Your task to perform on an android device: turn on showing notifications on the lock screen Image 0: 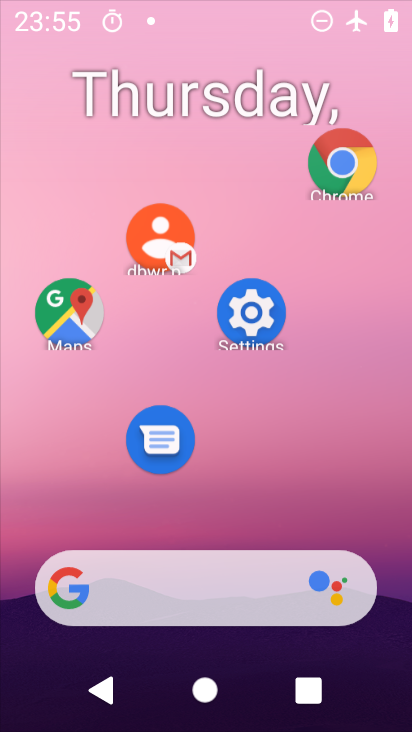
Step 0: drag from (283, 545) to (299, 209)
Your task to perform on an android device: turn on showing notifications on the lock screen Image 1: 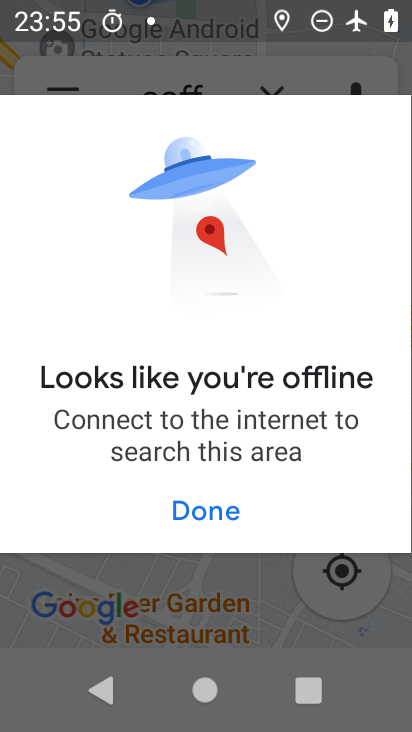
Step 1: click (205, 500)
Your task to perform on an android device: turn on showing notifications on the lock screen Image 2: 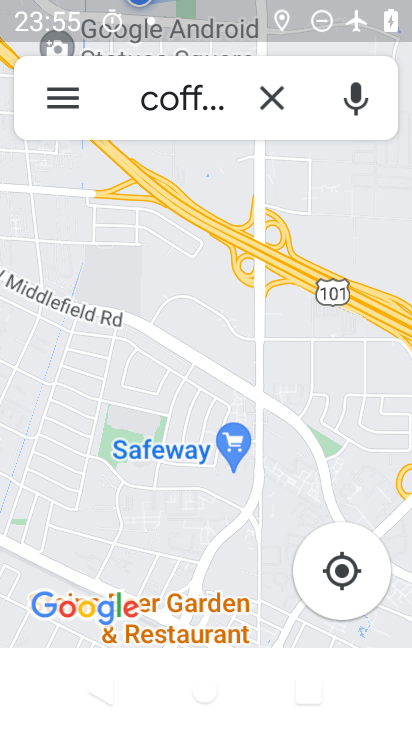
Step 2: press home button
Your task to perform on an android device: turn on showing notifications on the lock screen Image 3: 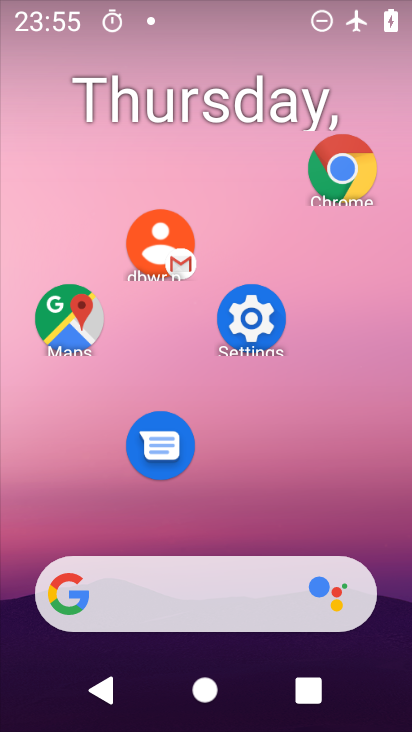
Step 3: click (252, 310)
Your task to perform on an android device: turn on showing notifications on the lock screen Image 4: 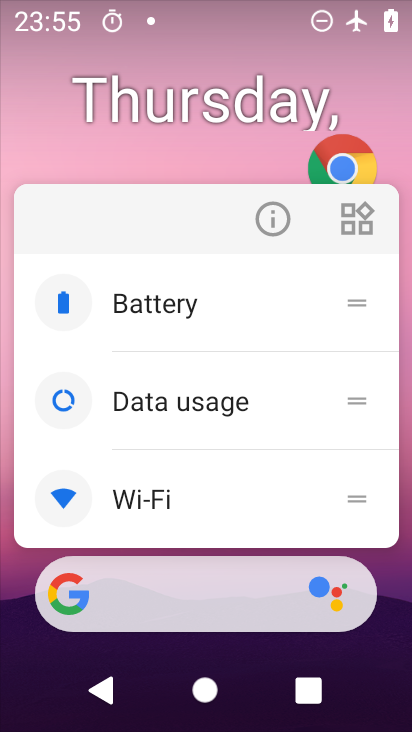
Step 4: click (271, 216)
Your task to perform on an android device: turn on showing notifications on the lock screen Image 5: 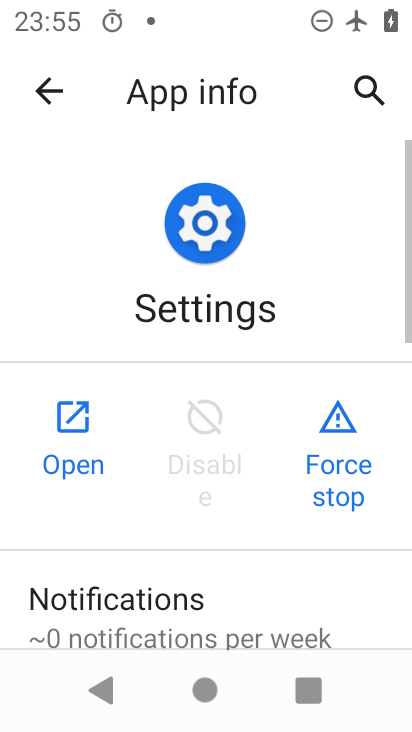
Step 5: click (53, 473)
Your task to perform on an android device: turn on showing notifications on the lock screen Image 6: 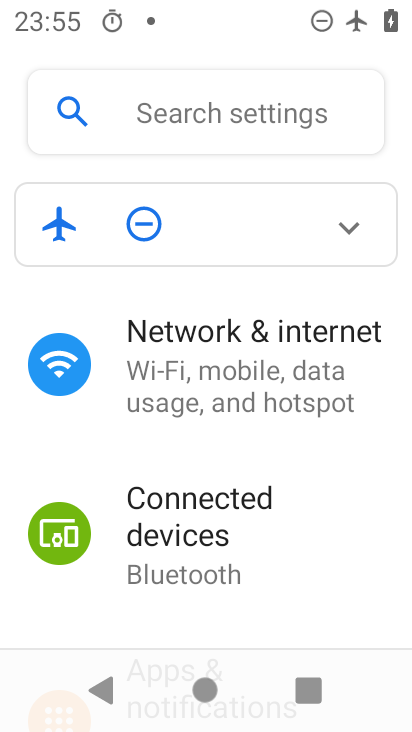
Step 6: drag from (237, 527) to (308, 187)
Your task to perform on an android device: turn on showing notifications on the lock screen Image 7: 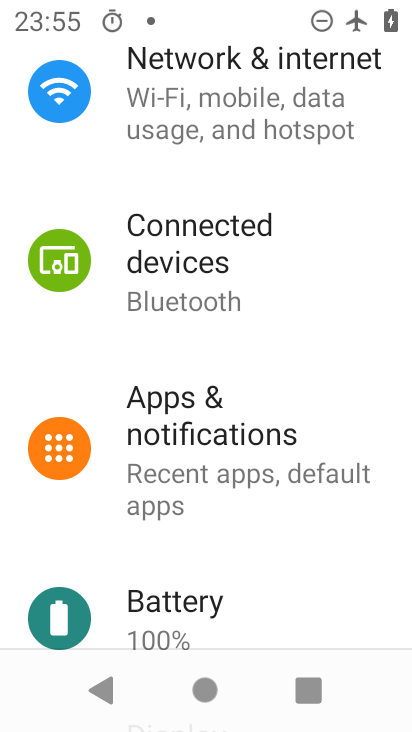
Step 7: click (206, 389)
Your task to perform on an android device: turn on showing notifications on the lock screen Image 8: 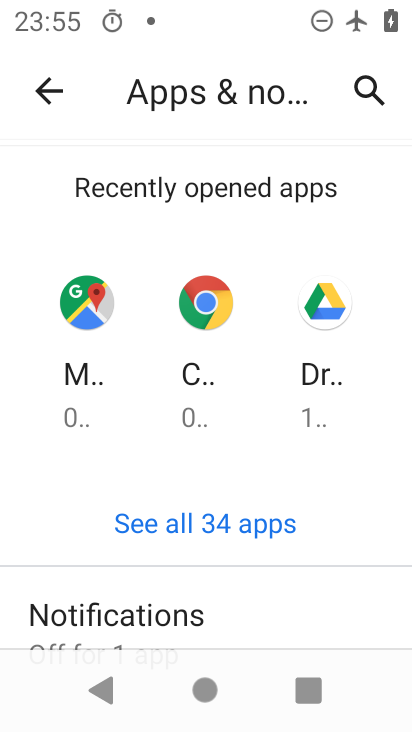
Step 8: drag from (163, 595) to (277, 283)
Your task to perform on an android device: turn on showing notifications on the lock screen Image 9: 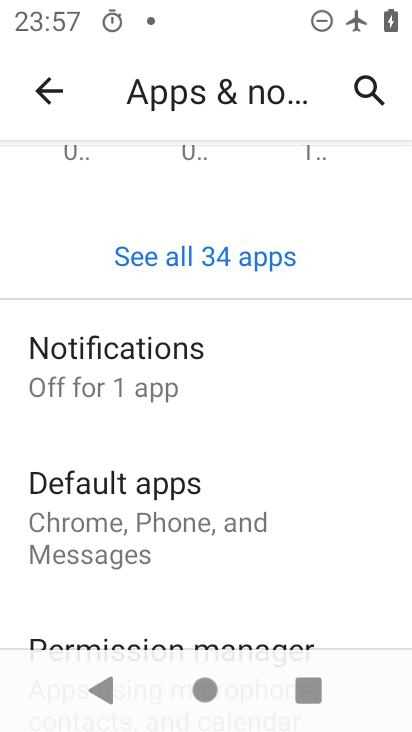
Step 9: drag from (246, 469) to (304, 251)
Your task to perform on an android device: turn on showing notifications on the lock screen Image 10: 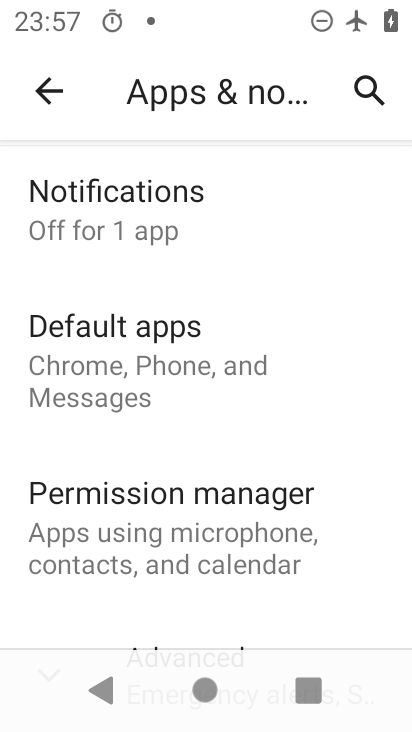
Step 10: click (174, 224)
Your task to perform on an android device: turn on showing notifications on the lock screen Image 11: 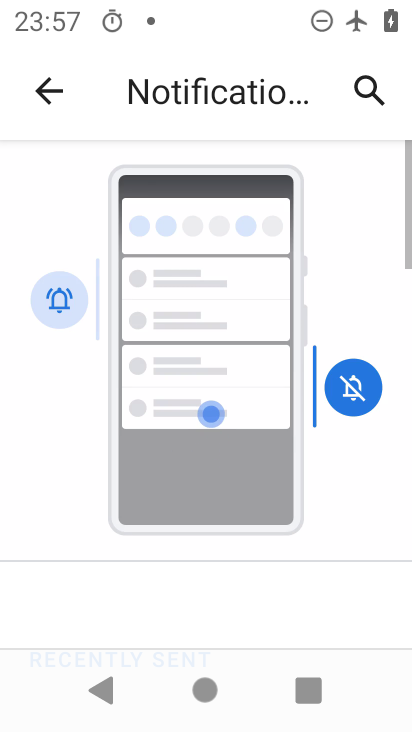
Step 11: drag from (245, 563) to (318, 58)
Your task to perform on an android device: turn on showing notifications on the lock screen Image 12: 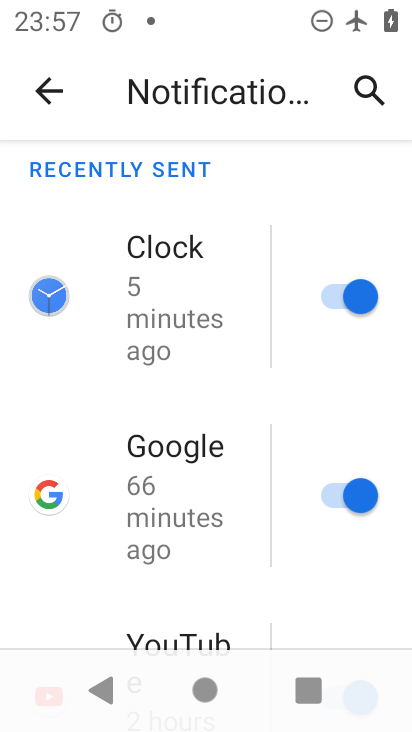
Step 12: drag from (210, 596) to (284, 179)
Your task to perform on an android device: turn on showing notifications on the lock screen Image 13: 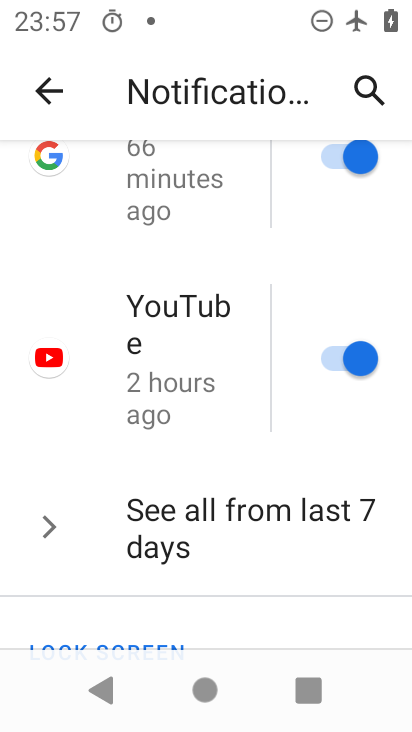
Step 13: drag from (222, 543) to (269, 104)
Your task to perform on an android device: turn on showing notifications on the lock screen Image 14: 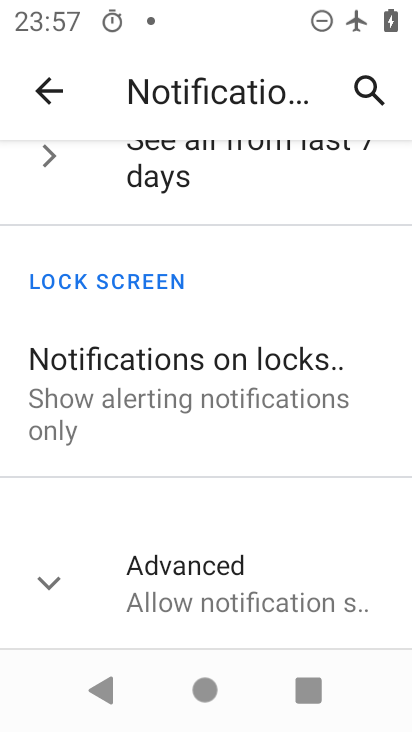
Step 14: drag from (226, 498) to (247, 345)
Your task to perform on an android device: turn on showing notifications on the lock screen Image 15: 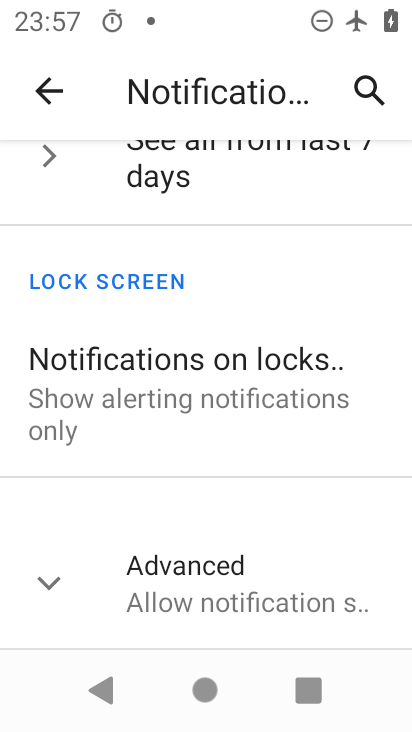
Step 15: click (167, 333)
Your task to perform on an android device: turn on showing notifications on the lock screen Image 16: 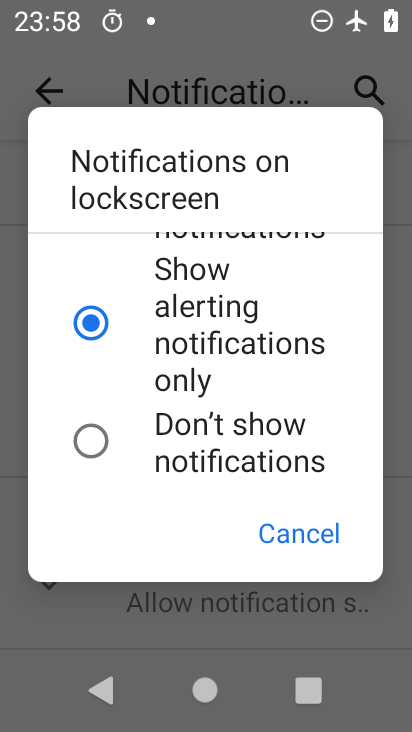
Step 16: task complete